Your task to perform on an android device: Go to internet settings Image 0: 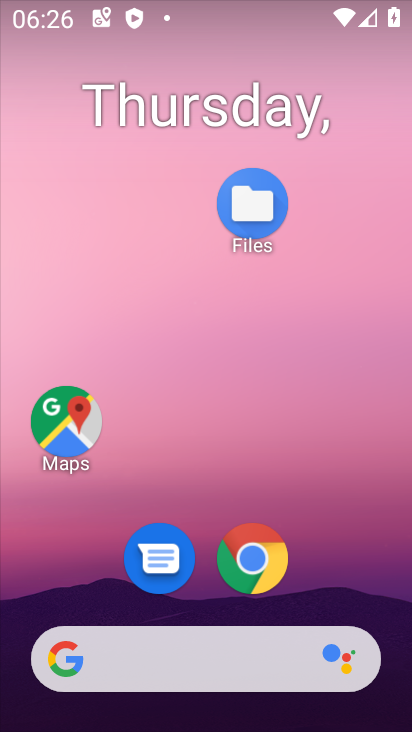
Step 0: drag from (297, 578) to (329, 59)
Your task to perform on an android device: Go to internet settings Image 1: 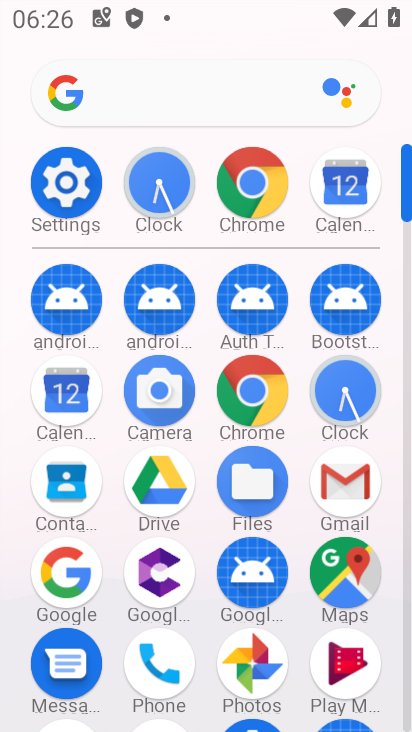
Step 1: click (81, 187)
Your task to perform on an android device: Go to internet settings Image 2: 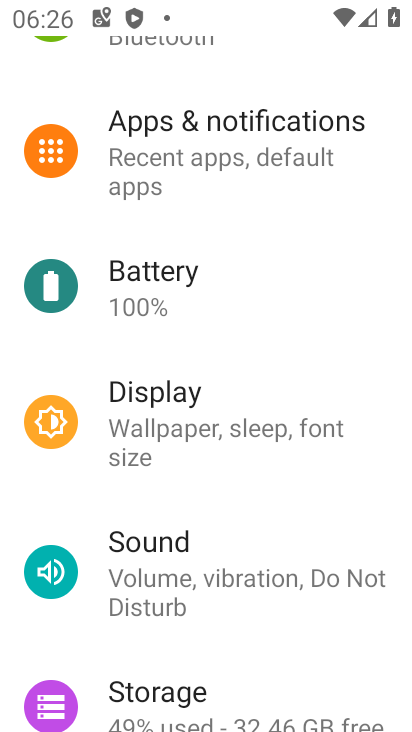
Step 2: drag from (170, 202) to (155, 711)
Your task to perform on an android device: Go to internet settings Image 3: 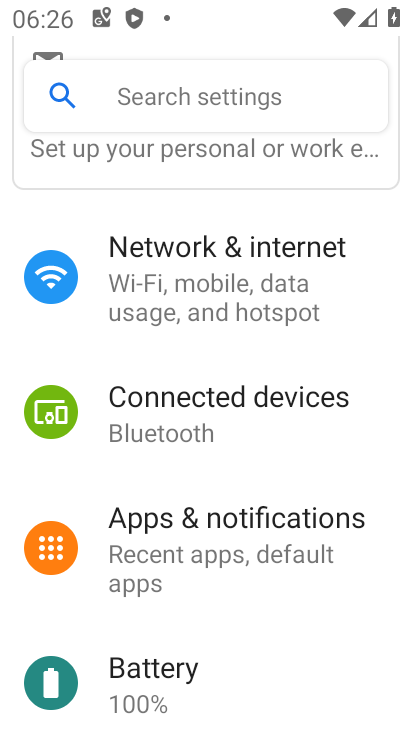
Step 3: click (218, 266)
Your task to perform on an android device: Go to internet settings Image 4: 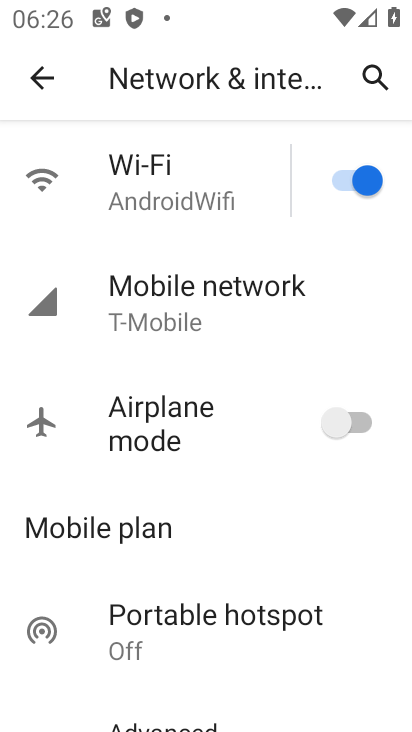
Step 4: task complete